Your task to perform on an android device: Go to battery settings Image 0: 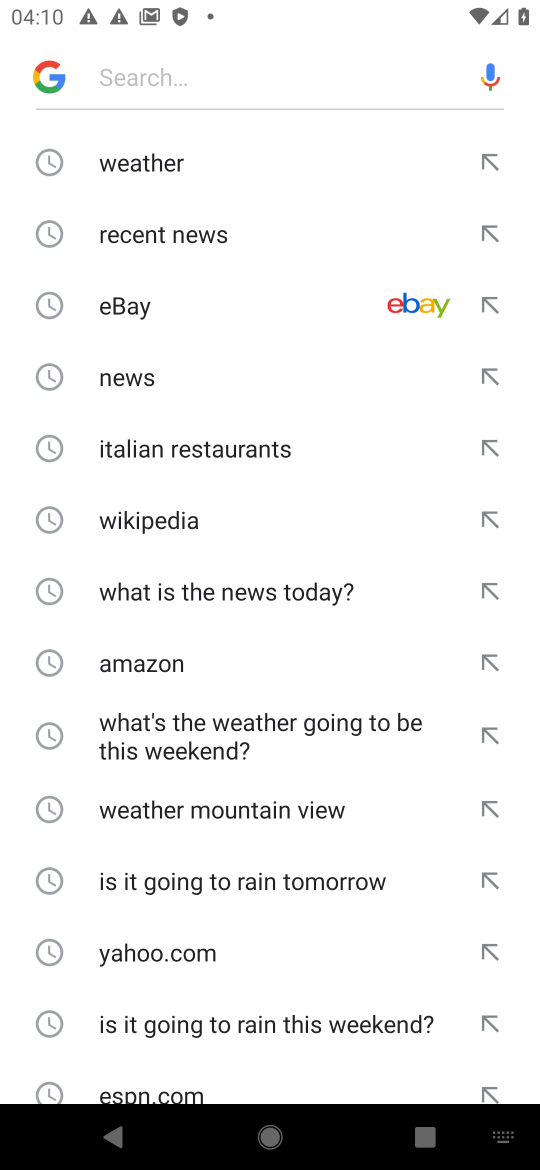
Step 0: press back button
Your task to perform on an android device: Go to battery settings Image 1: 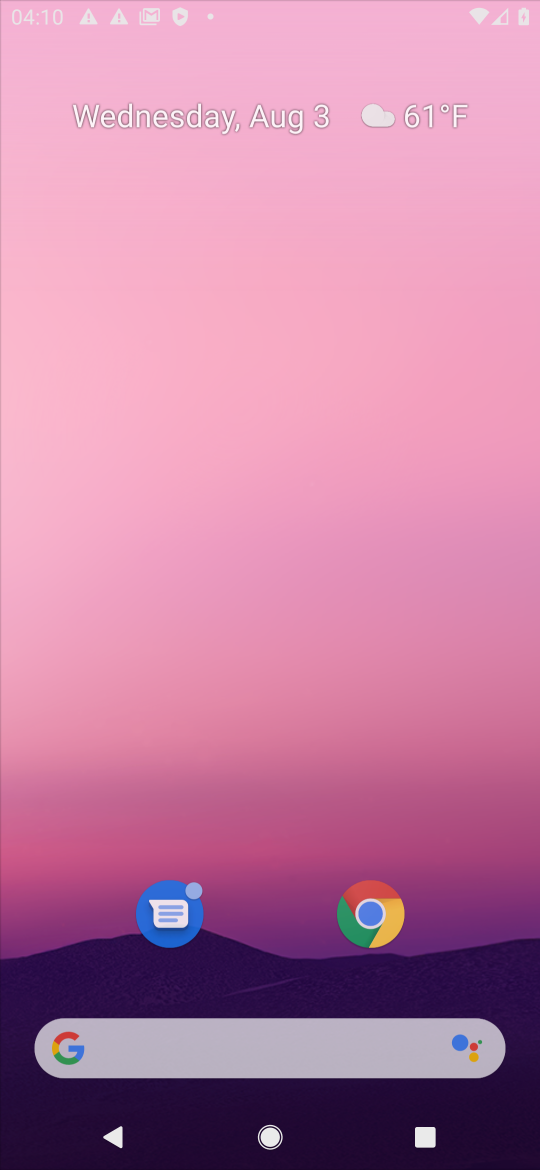
Step 1: press back button
Your task to perform on an android device: Go to battery settings Image 2: 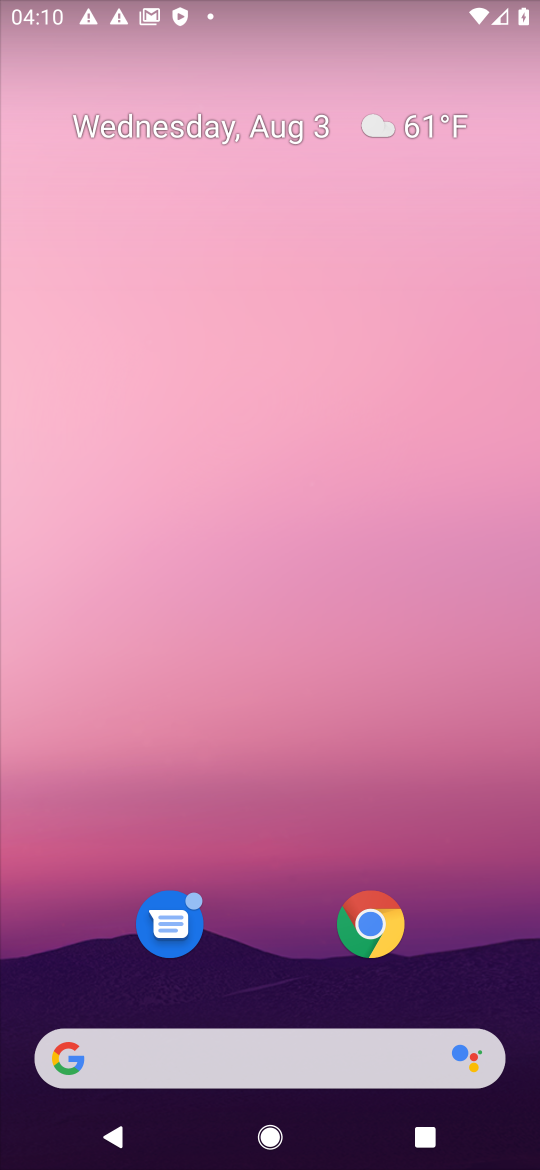
Step 2: click (265, 332)
Your task to perform on an android device: Go to battery settings Image 3: 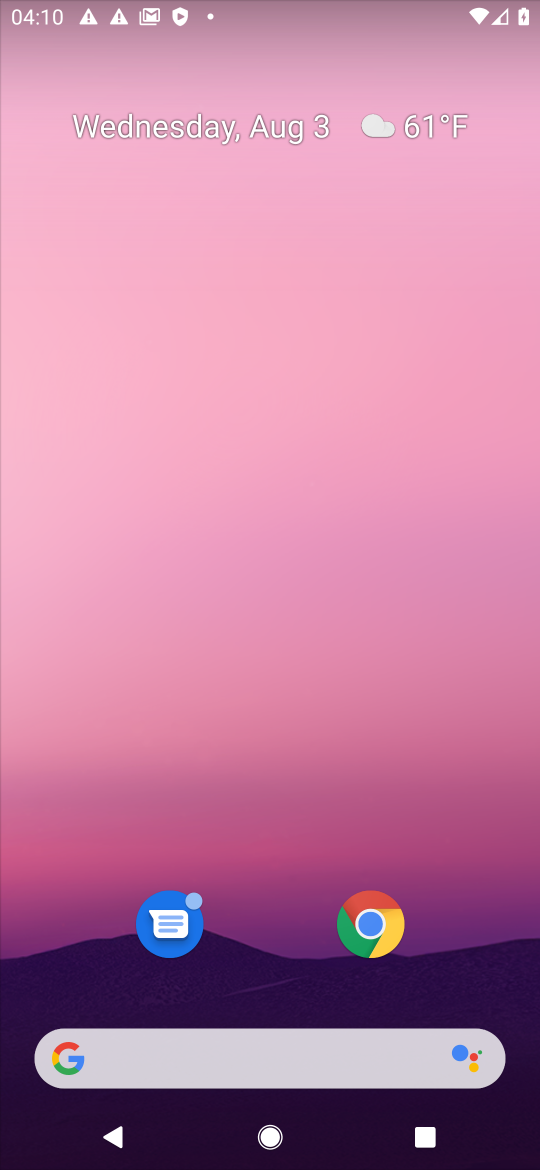
Step 3: drag from (238, 959) to (297, 364)
Your task to perform on an android device: Go to battery settings Image 4: 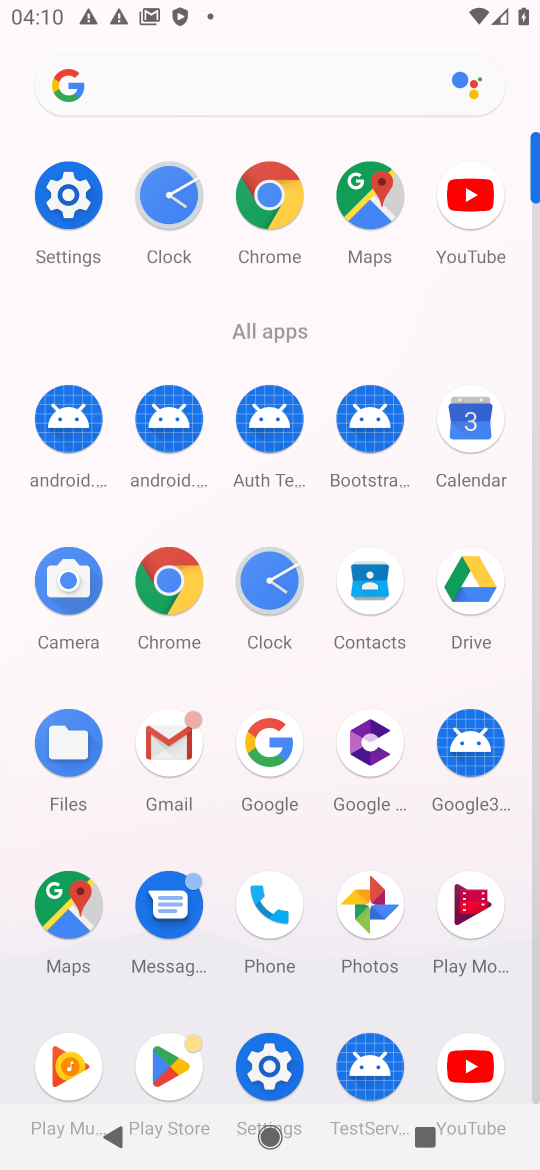
Step 4: click (91, 211)
Your task to perform on an android device: Go to battery settings Image 5: 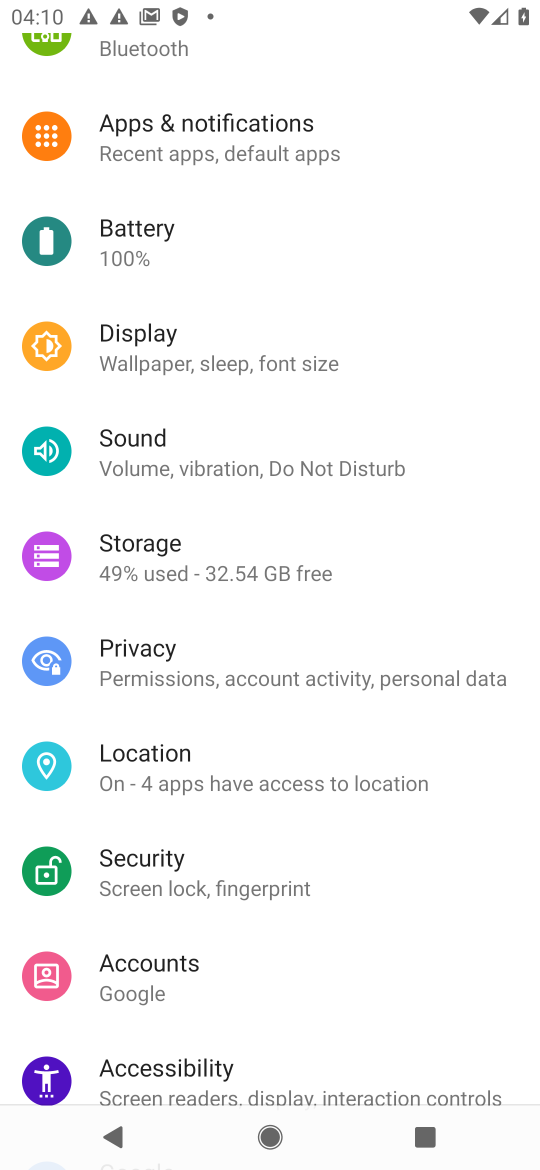
Step 5: click (198, 220)
Your task to perform on an android device: Go to battery settings Image 6: 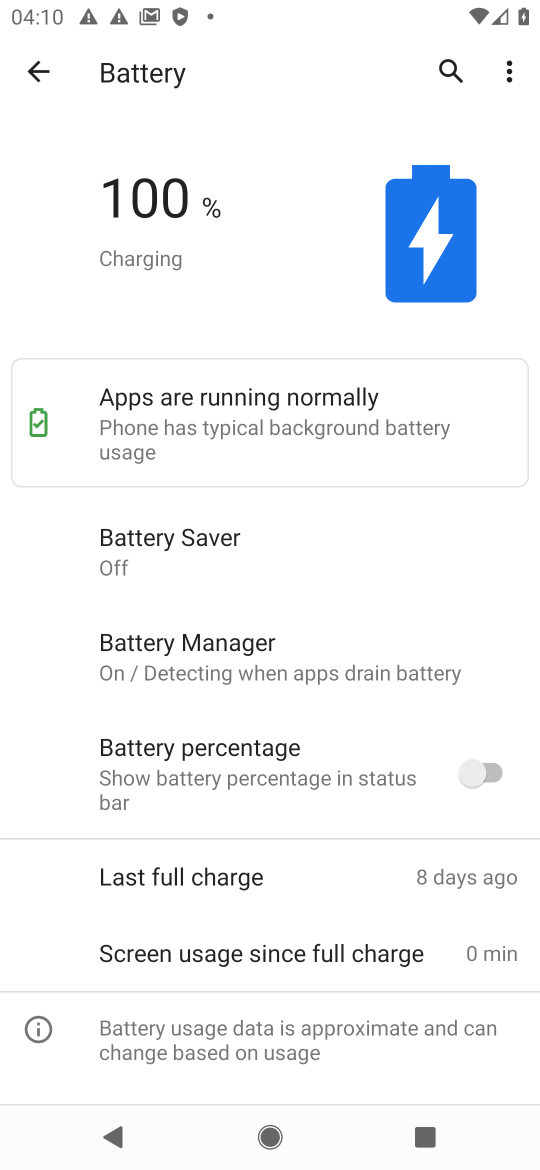
Step 6: task complete